Your task to perform on an android device: toggle notification dots Image 0: 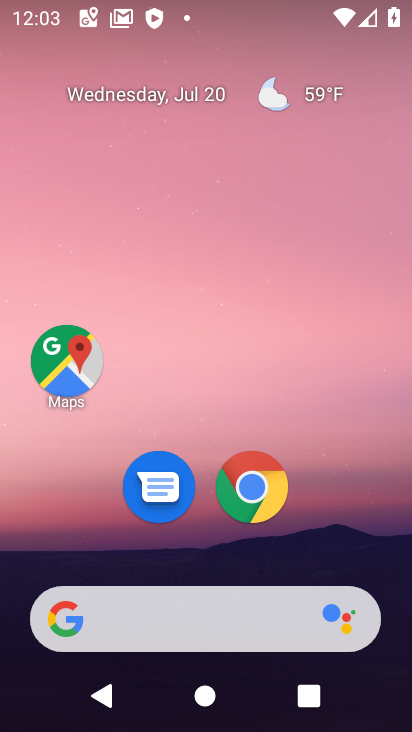
Step 0: drag from (175, 545) to (271, 33)
Your task to perform on an android device: toggle notification dots Image 1: 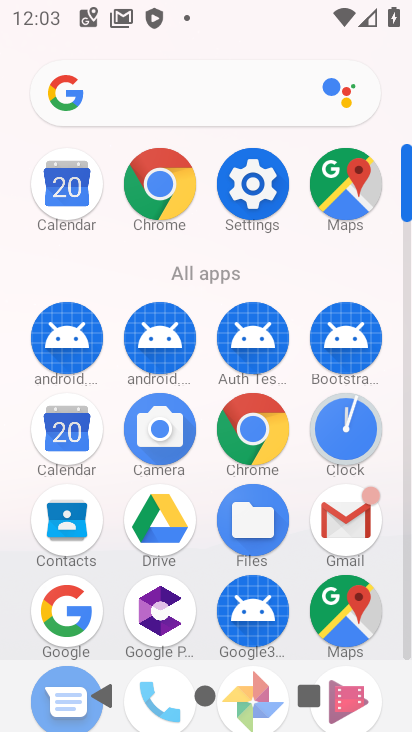
Step 1: click (250, 171)
Your task to perform on an android device: toggle notification dots Image 2: 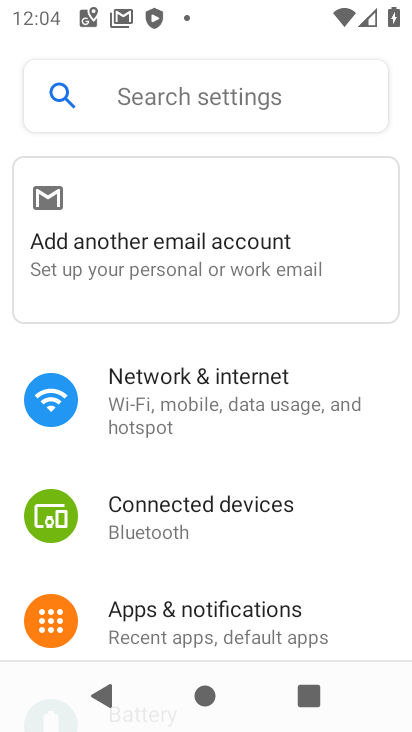
Step 2: click (237, 612)
Your task to perform on an android device: toggle notification dots Image 3: 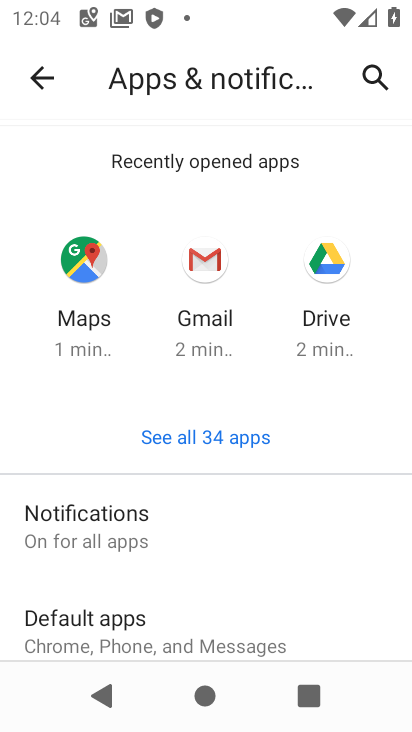
Step 3: click (90, 515)
Your task to perform on an android device: toggle notification dots Image 4: 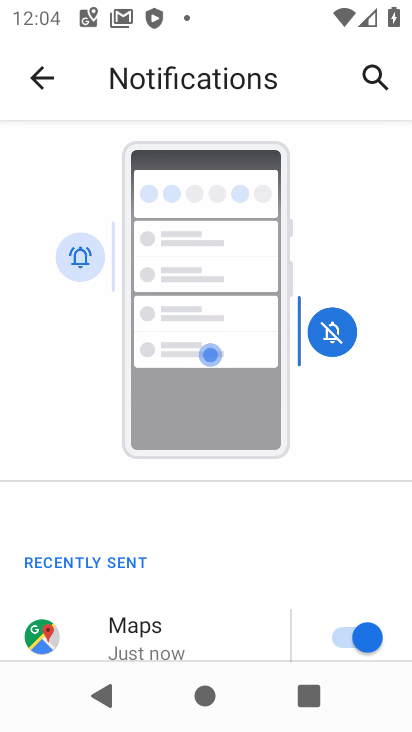
Step 4: drag from (180, 627) to (284, 123)
Your task to perform on an android device: toggle notification dots Image 5: 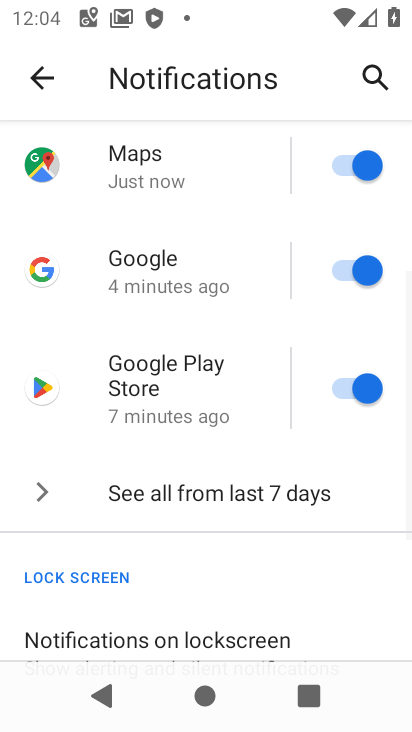
Step 5: drag from (201, 631) to (283, 100)
Your task to perform on an android device: toggle notification dots Image 6: 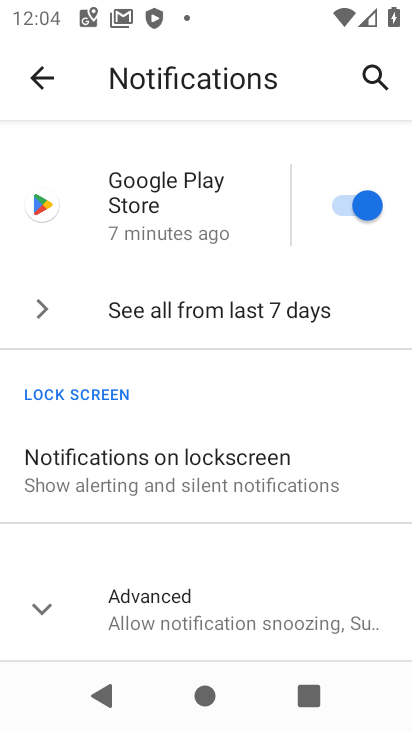
Step 6: click (129, 621)
Your task to perform on an android device: toggle notification dots Image 7: 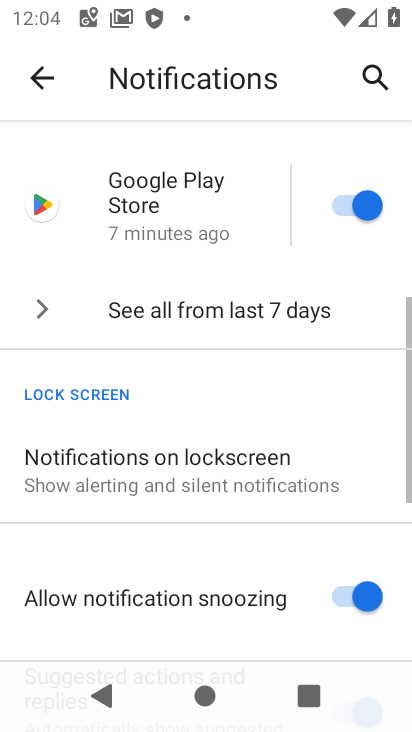
Step 7: drag from (173, 606) to (266, 222)
Your task to perform on an android device: toggle notification dots Image 8: 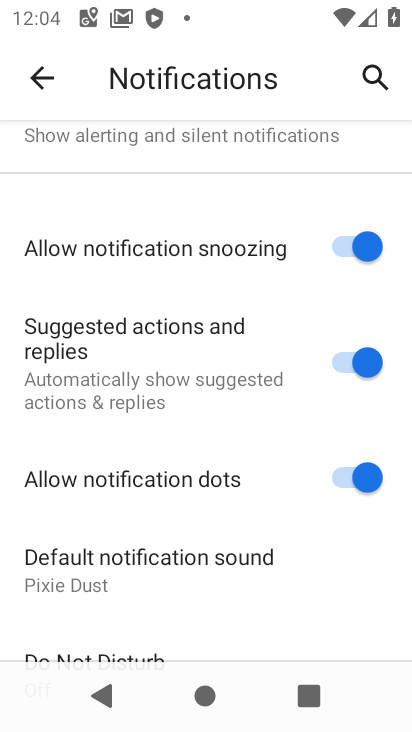
Step 8: click (359, 486)
Your task to perform on an android device: toggle notification dots Image 9: 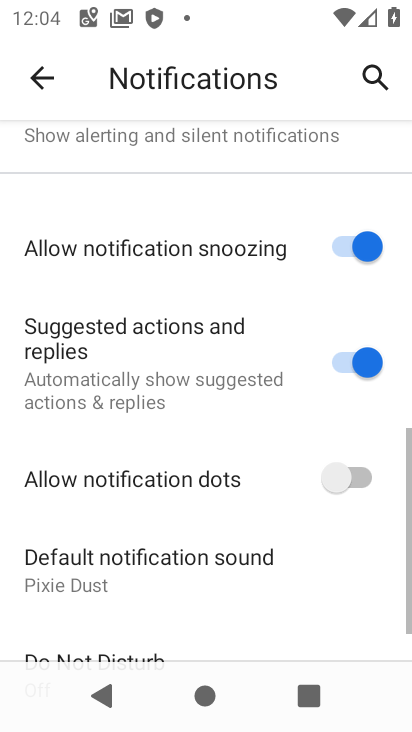
Step 9: task complete